Your task to perform on an android device: Go to Google Image 0: 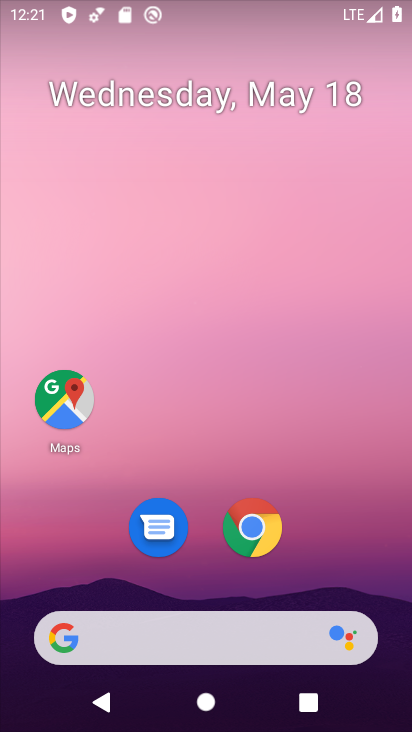
Step 0: drag from (348, 552) to (178, 27)
Your task to perform on an android device: Go to Google Image 1: 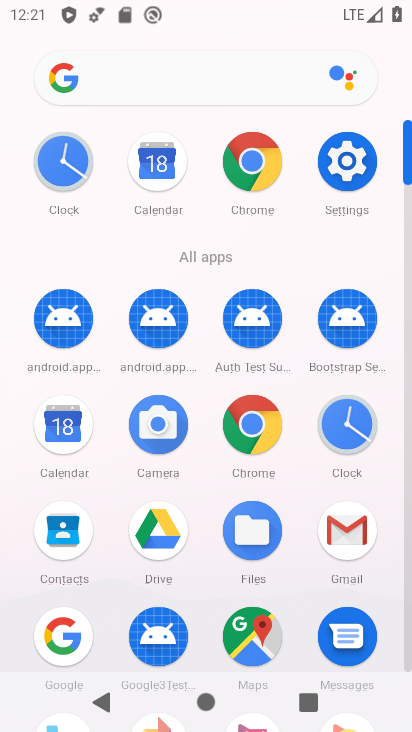
Step 1: click (42, 636)
Your task to perform on an android device: Go to Google Image 2: 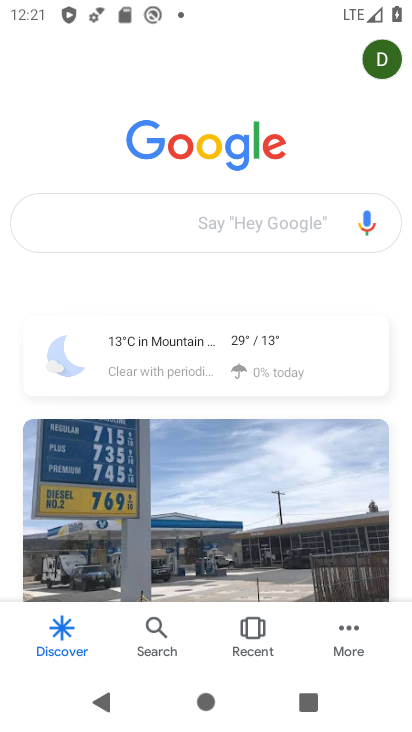
Step 2: task complete